Your task to perform on an android device: turn off location history Image 0: 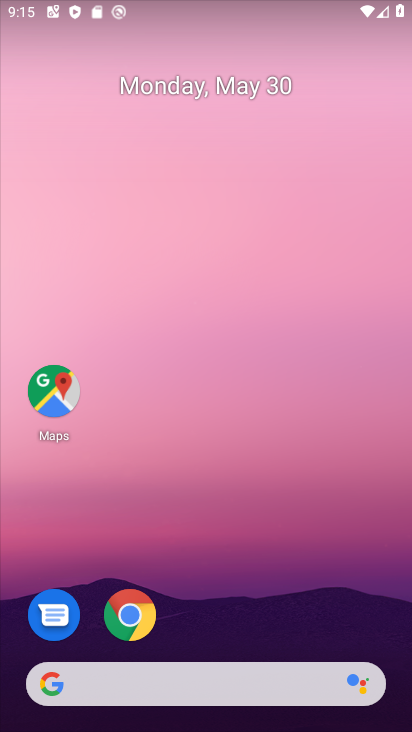
Step 0: drag from (235, 250) to (207, 16)
Your task to perform on an android device: turn off location history Image 1: 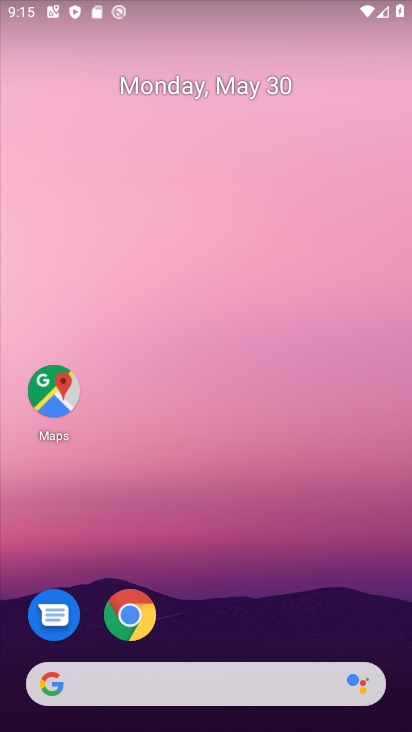
Step 1: drag from (307, 574) to (170, 13)
Your task to perform on an android device: turn off location history Image 2: 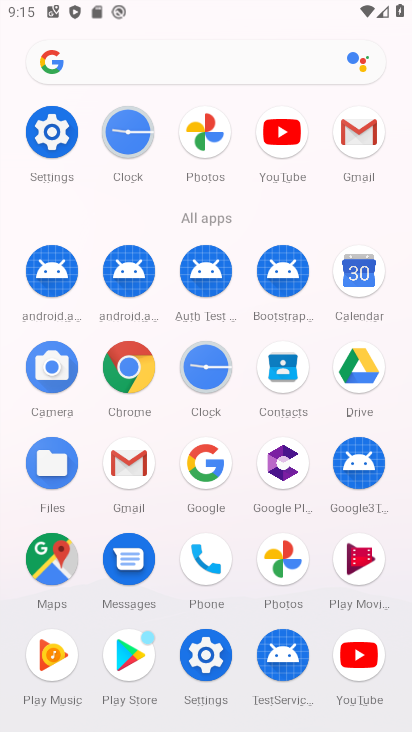
Step 2: click (49, 144)
Your task to perform on an android device: turn off location history Image 3: 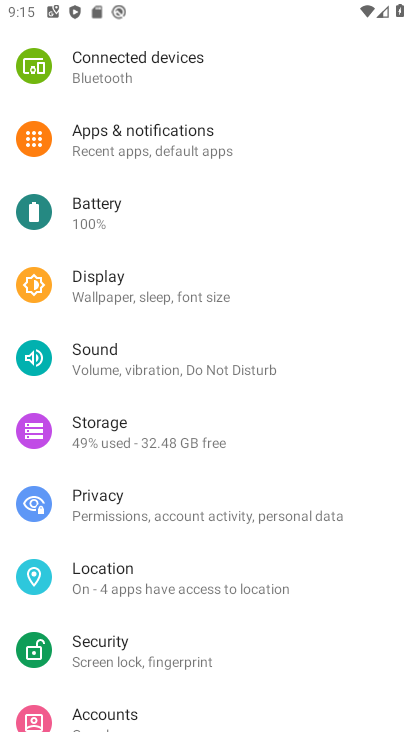
Step 3: click (197, 580)
Your task to perform on an android device: turn off location history Image 4: 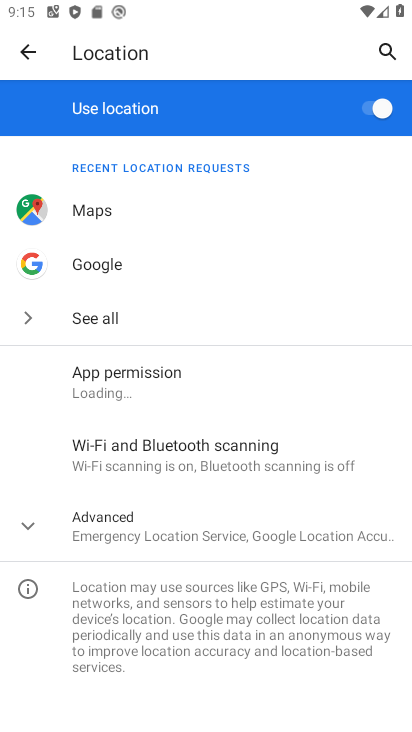
Step 4: click (210, 516)
Your task to perform on an android device: turn off location history Image 5: 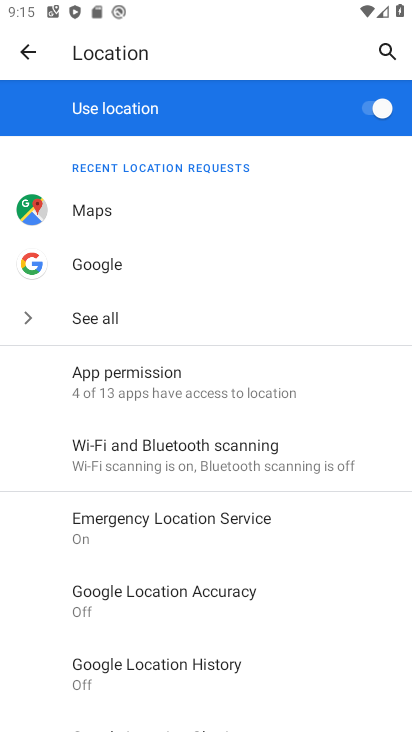
Step 5: click (259, 588)
Your task to perform on an android device: turn off location history Image 6: 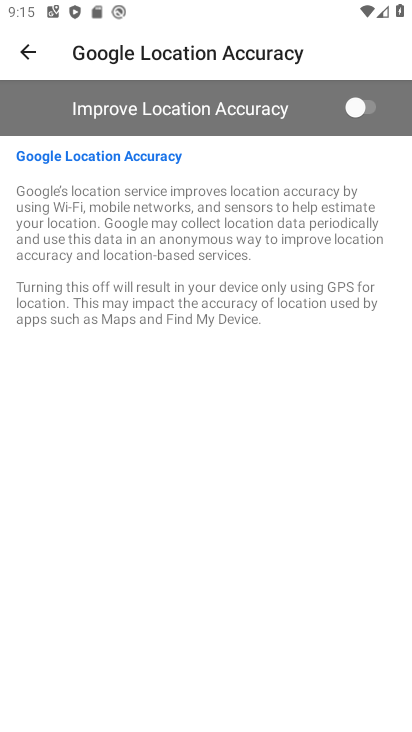
Step 6: click (19, 49)
Your task to perform on an android device: turn off location history Image 7: 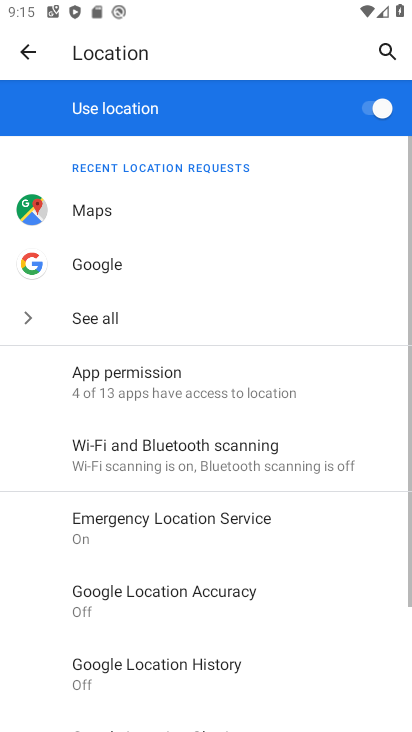
Step 7: click (192, 680)
Your task to perform on an android device: turn off location history Image 8: 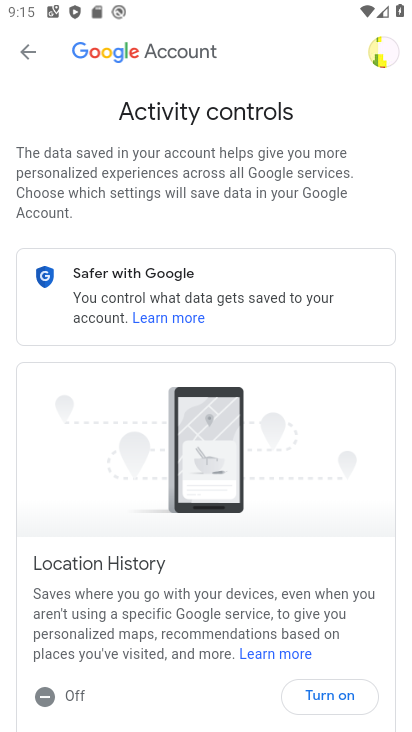
Step 8: task complete